Your task to perform on an android device: toggle pop-ups in chrome Image 0: 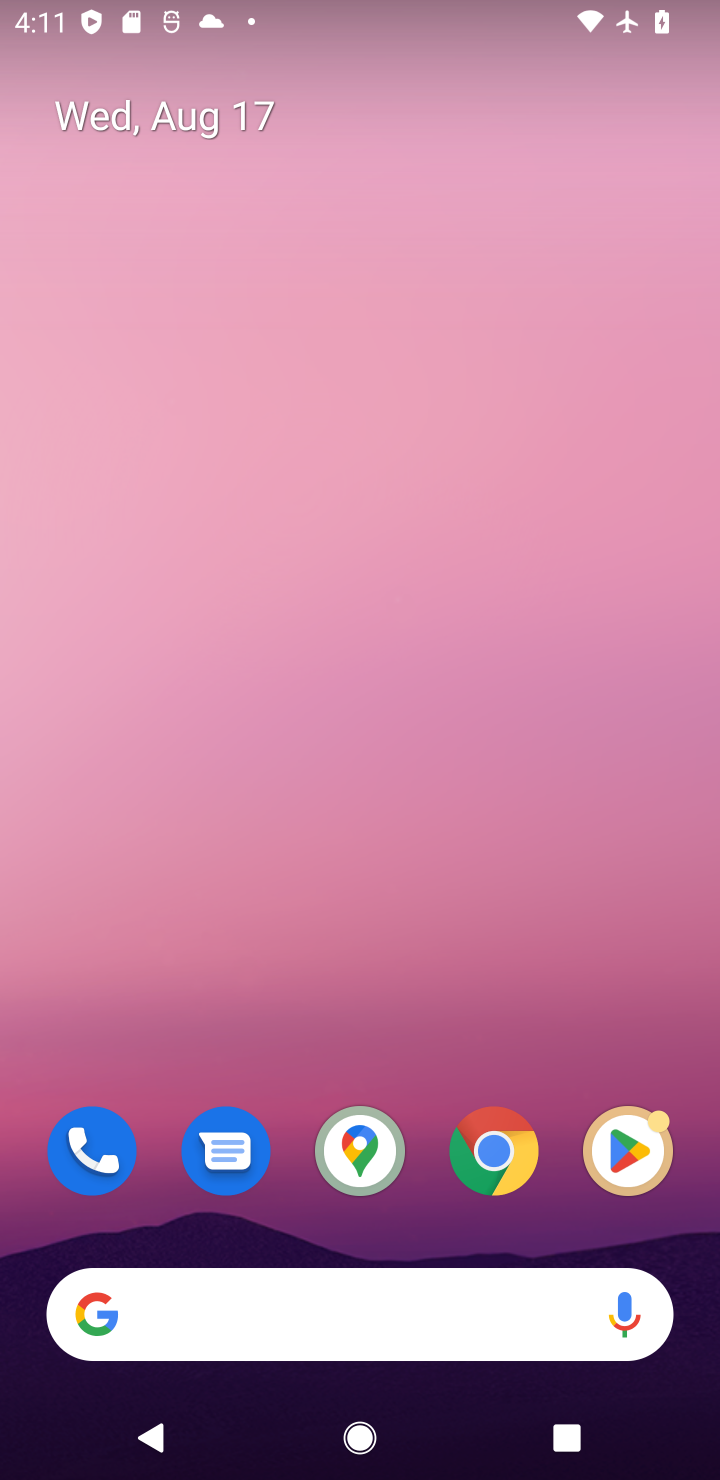
Step 0: drag from (505, 1144) to (581, 290)
Your task to perform on an android device: toggle pop-ups in chrome Image 1: 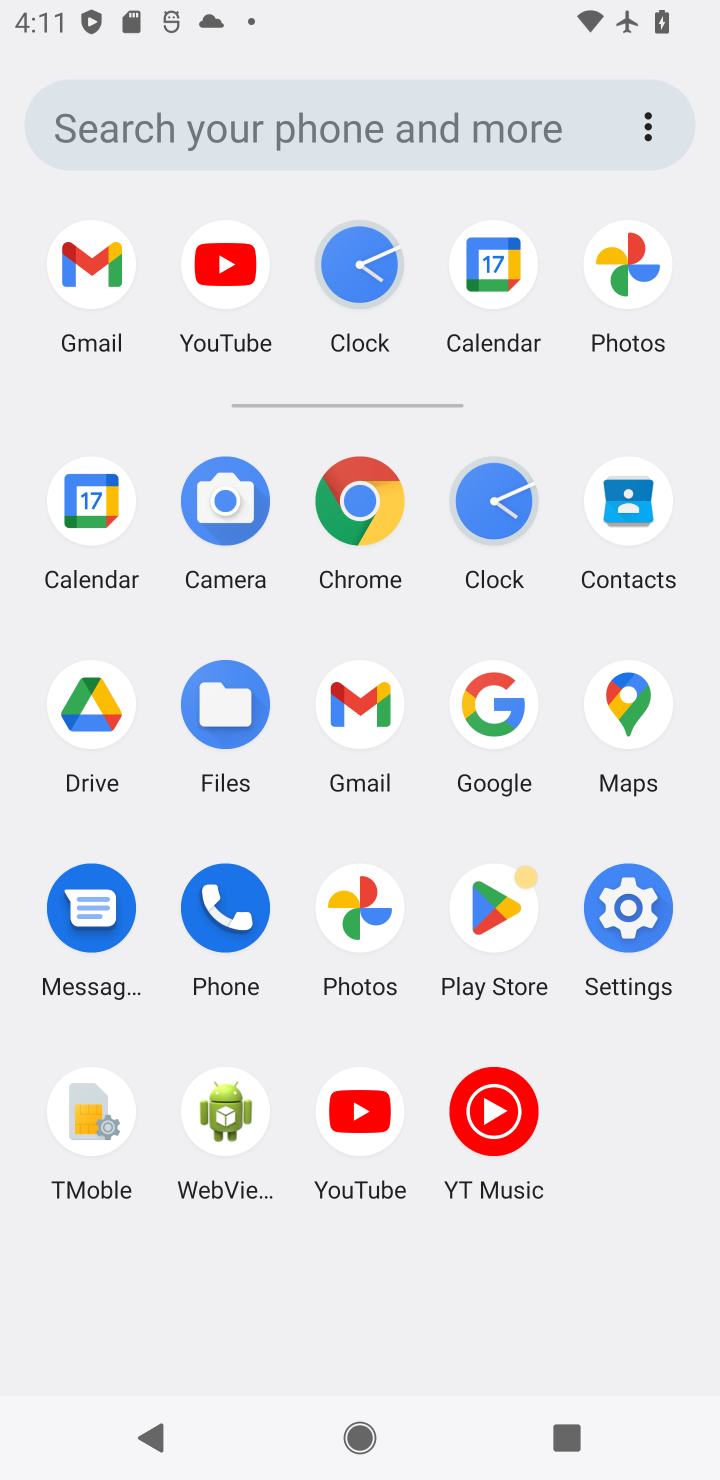
Step 1: click (362, 536)
Your task to perform on an android device: toggle pop-ups in chrome Image 2: 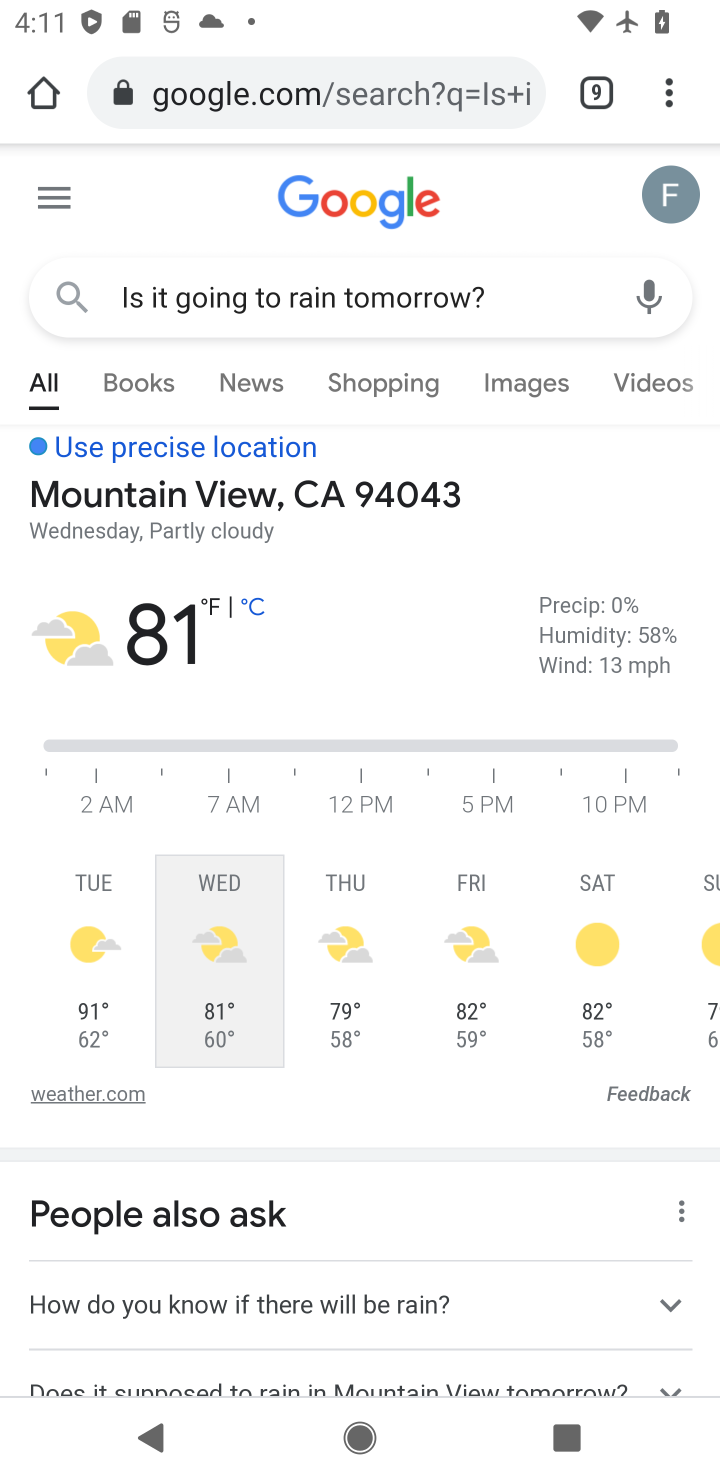
Step 2: click (653, 109)
Your task to perform on an android device: toggle pop-ups in chrome Image 3: 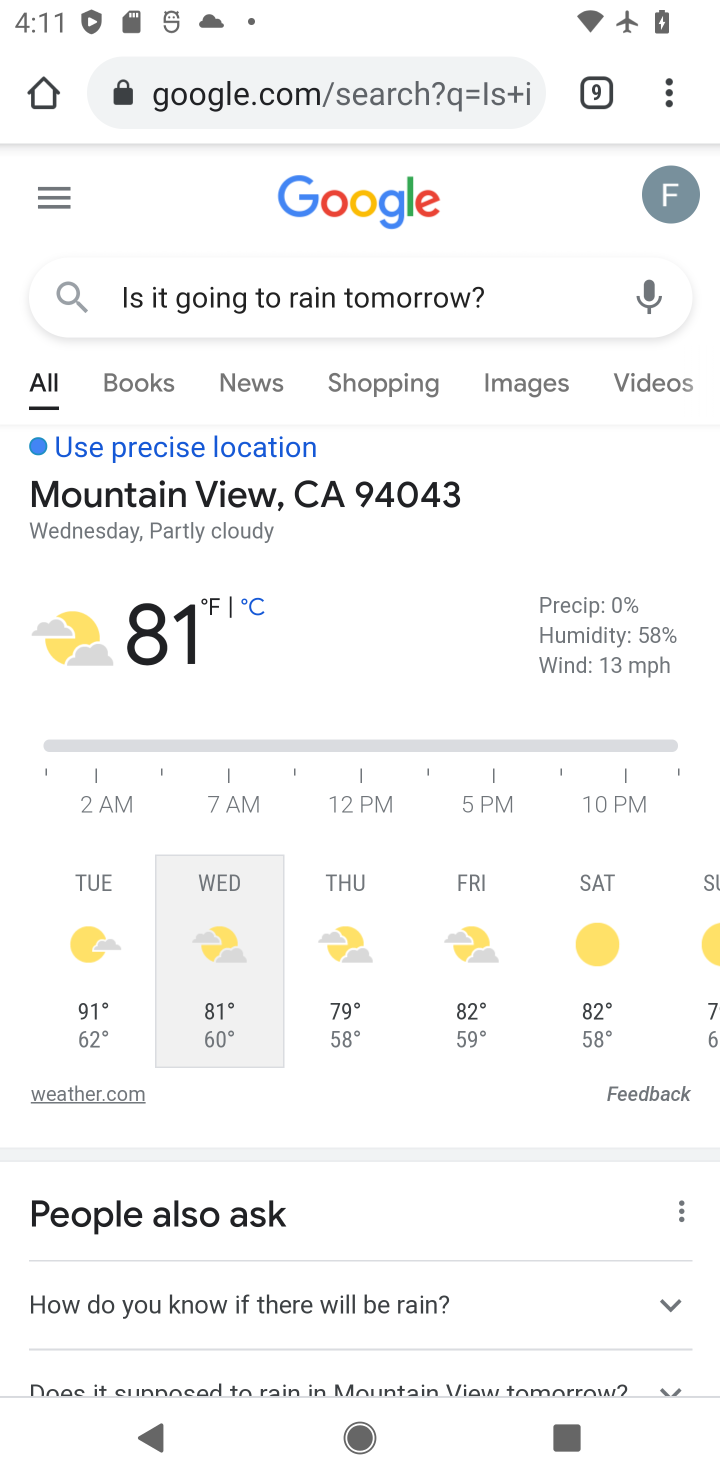
Step 3: click (667, 94)
Your task to perform on an android device: toggle pop-ups in chrome Image 4: 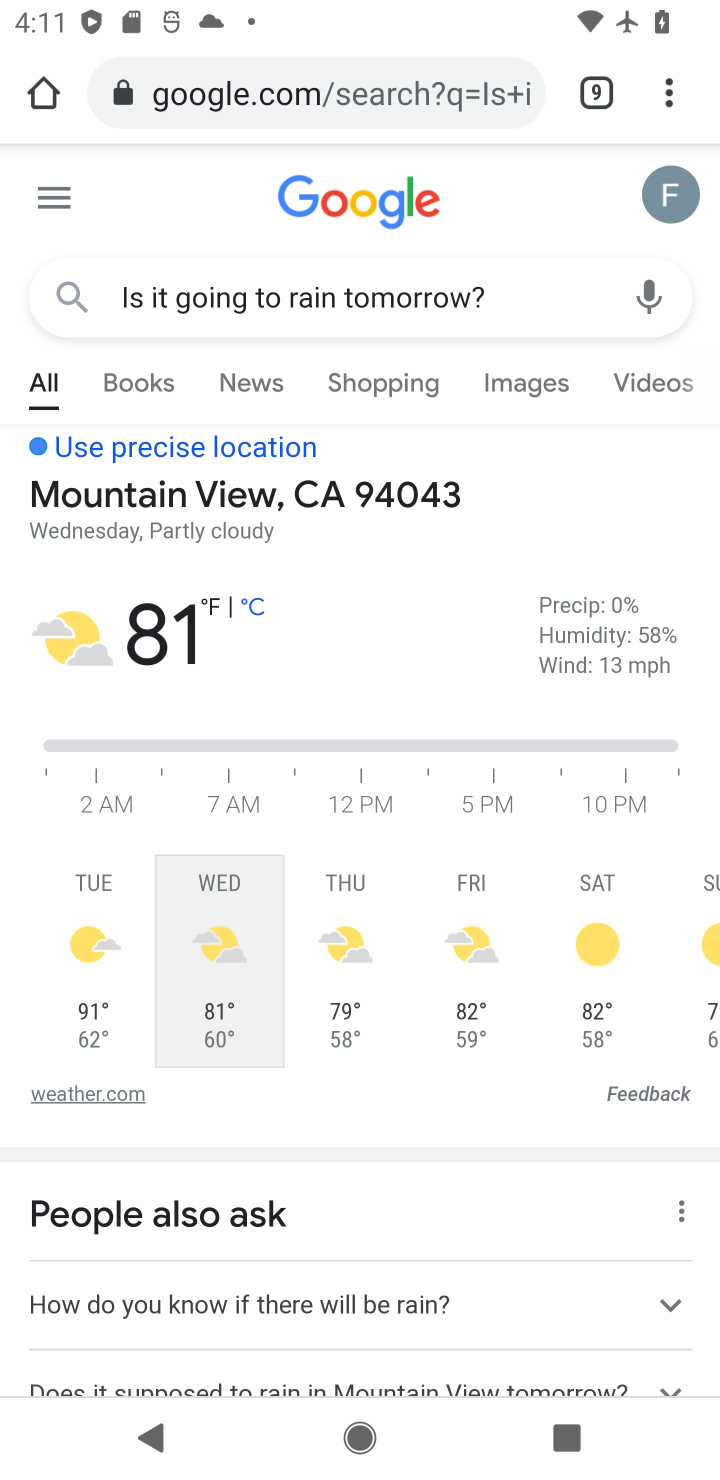
Step 4: click (667, 94)
Your task to perform on an android device: toggle pop-ups in chrome Image 5: 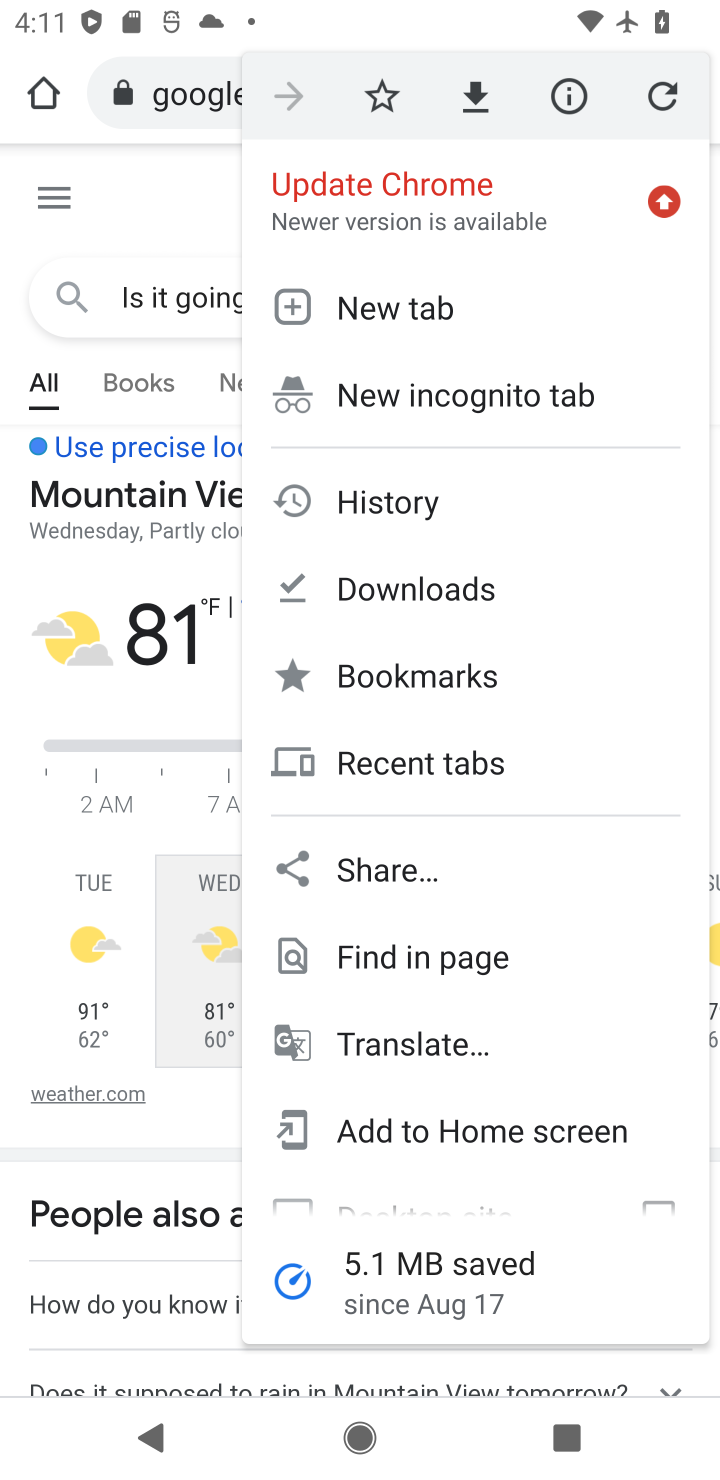
Step 5: drag from (395, 1147) to (469, 325)
Your task to perform on an android device: toggle pop-ups in chrome Image 6: 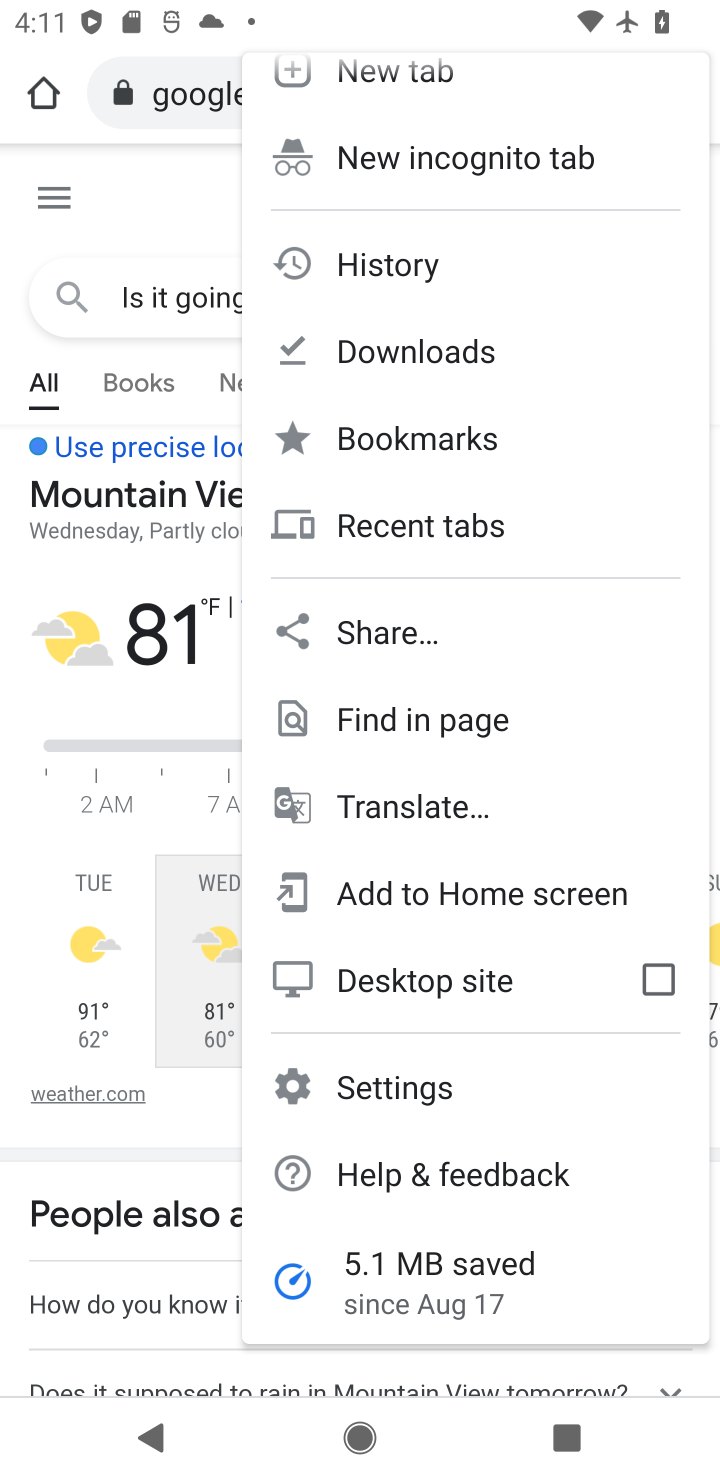
Step 6: click (395, 1067)
Your task to perform on an android device: toggle pop-ups in chrome Image 7: 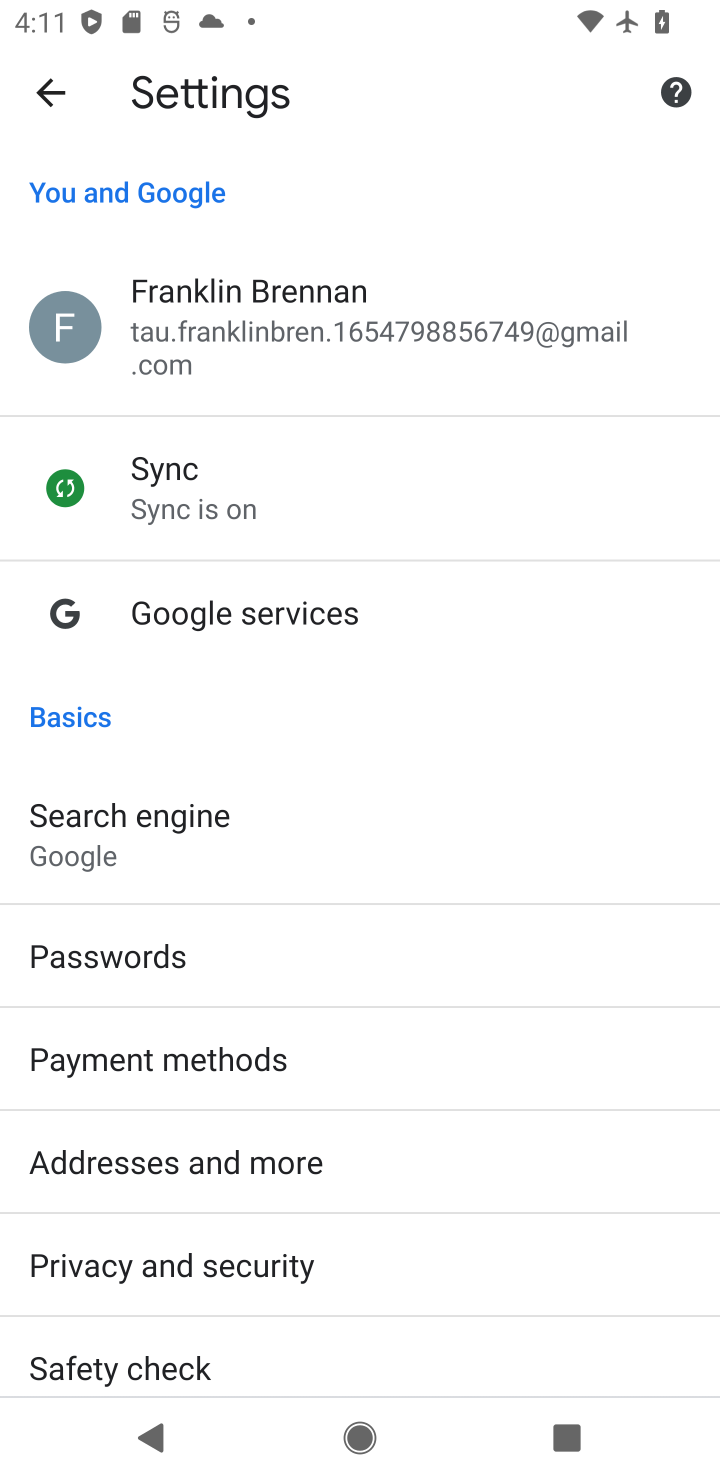
Step 7: drag from (400, 1220) to (403, 259)
Your task to perform on an android device: toggle pop-ups in chrome Image 8: 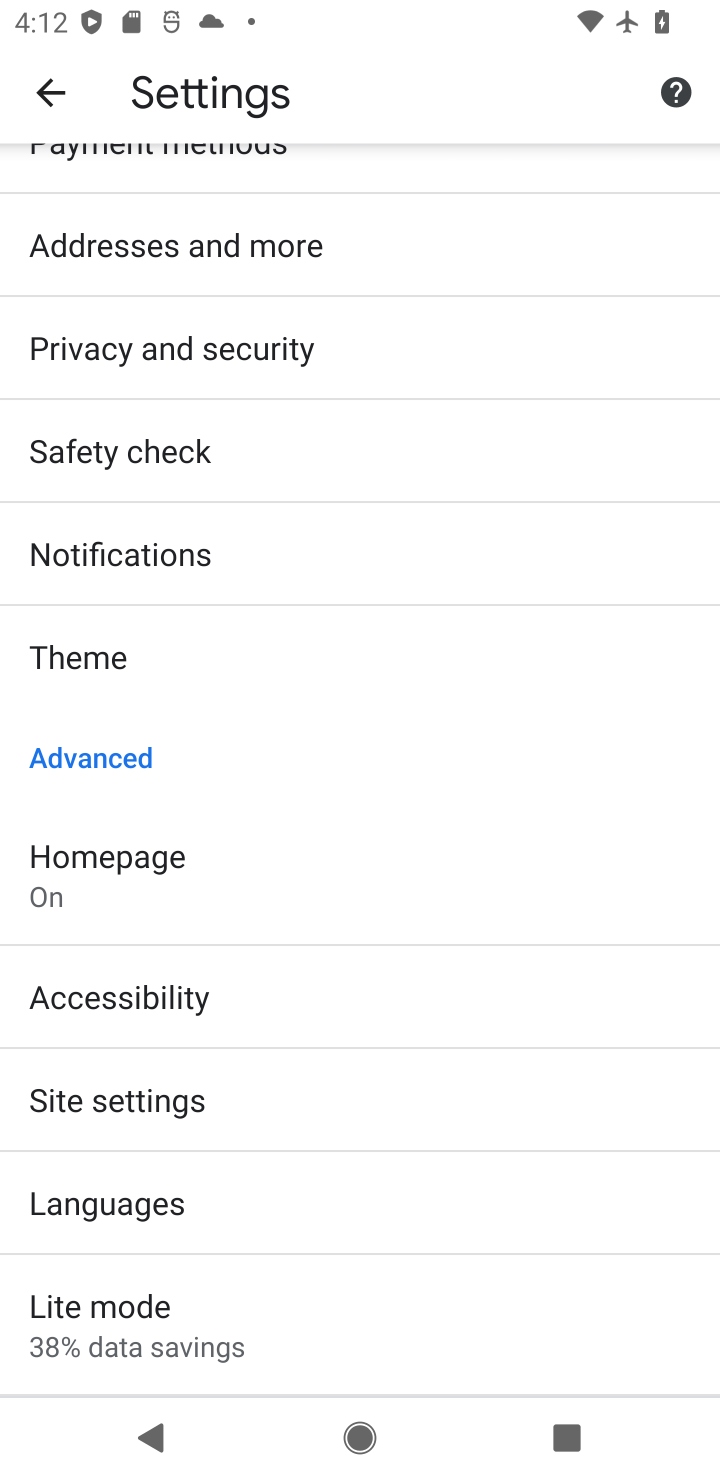
Step 8: drag from (237, 1264) to (229, 734)
Your task to perform on an android device: toggle pop-ups in chrome Image 9: 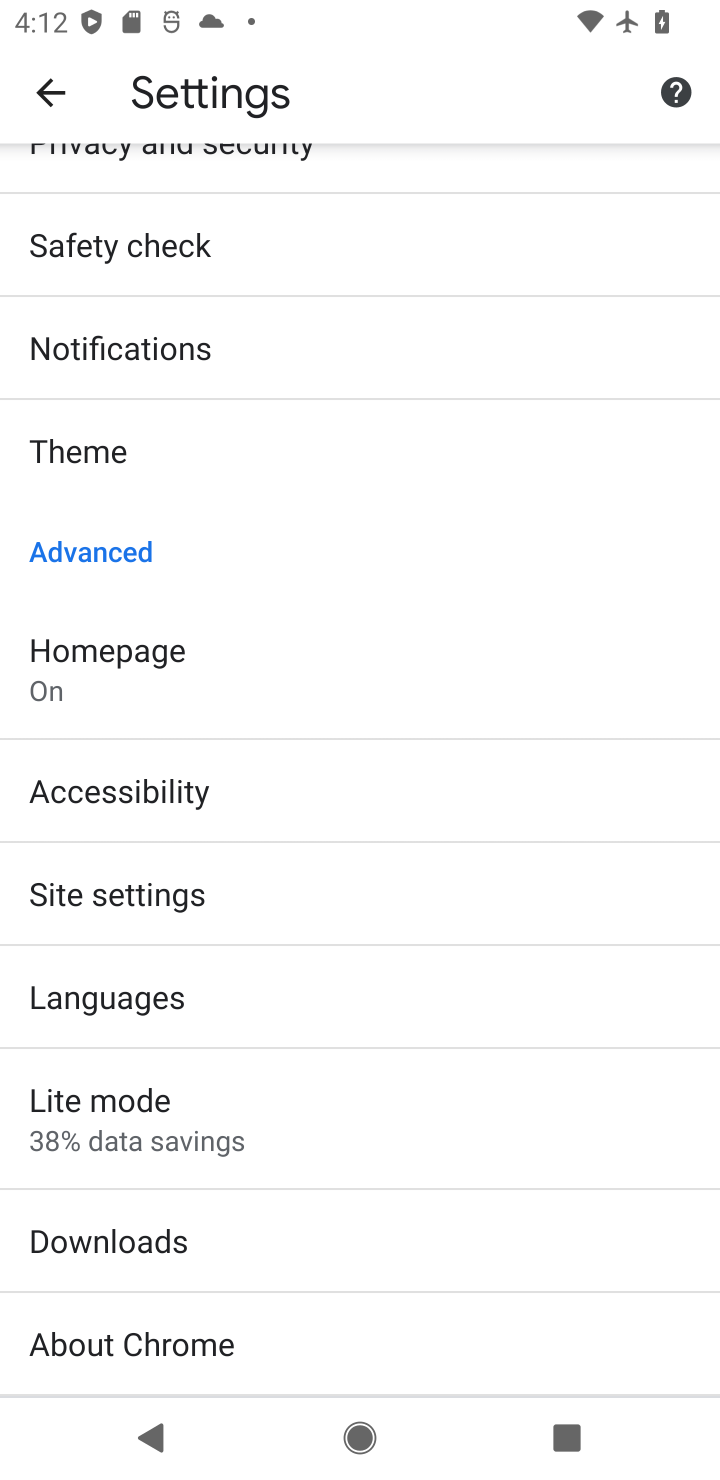
Step 9: click (156, 882)
Your task to perform on an android device: toggle pop-ups in chrome Image 10: 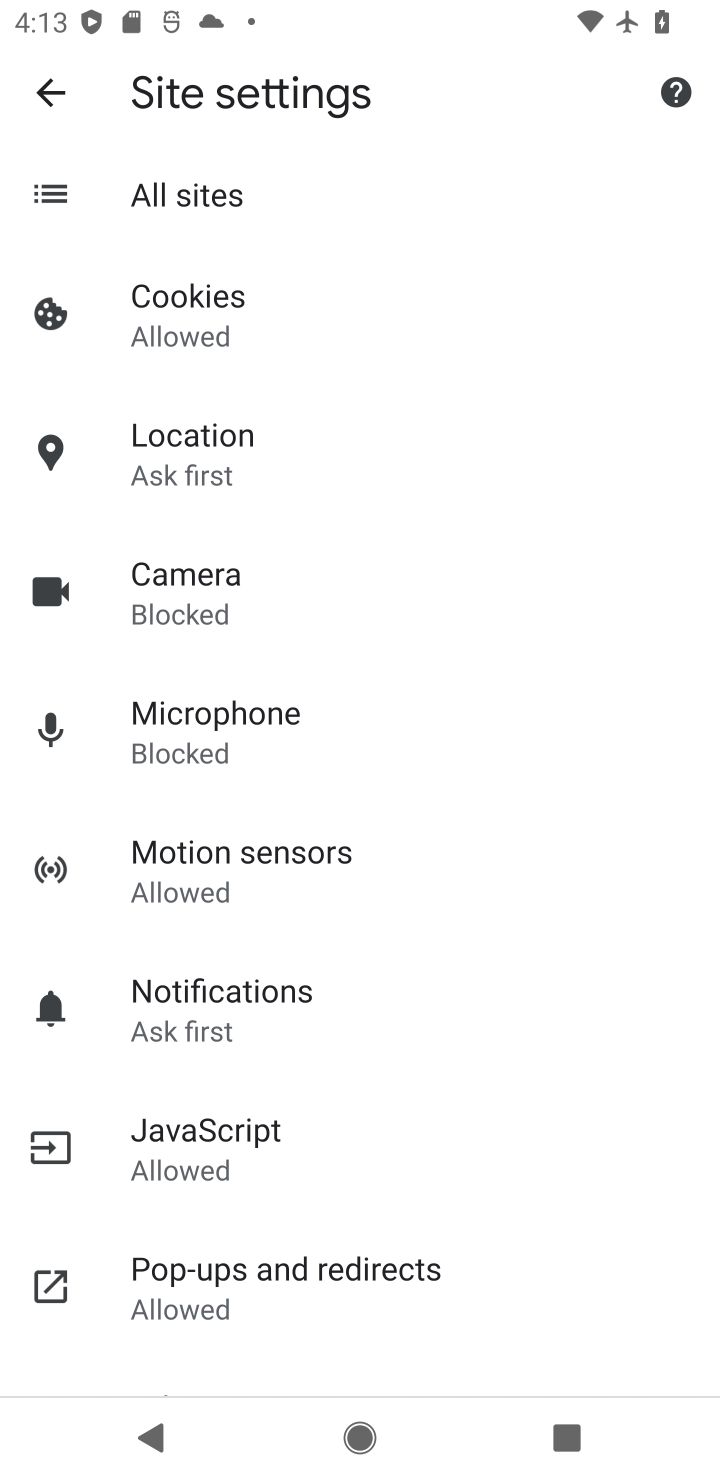
Step 10: click (209, 1278)
Your task to perform on an android device: toggle pop-ups in chrome Image 11: 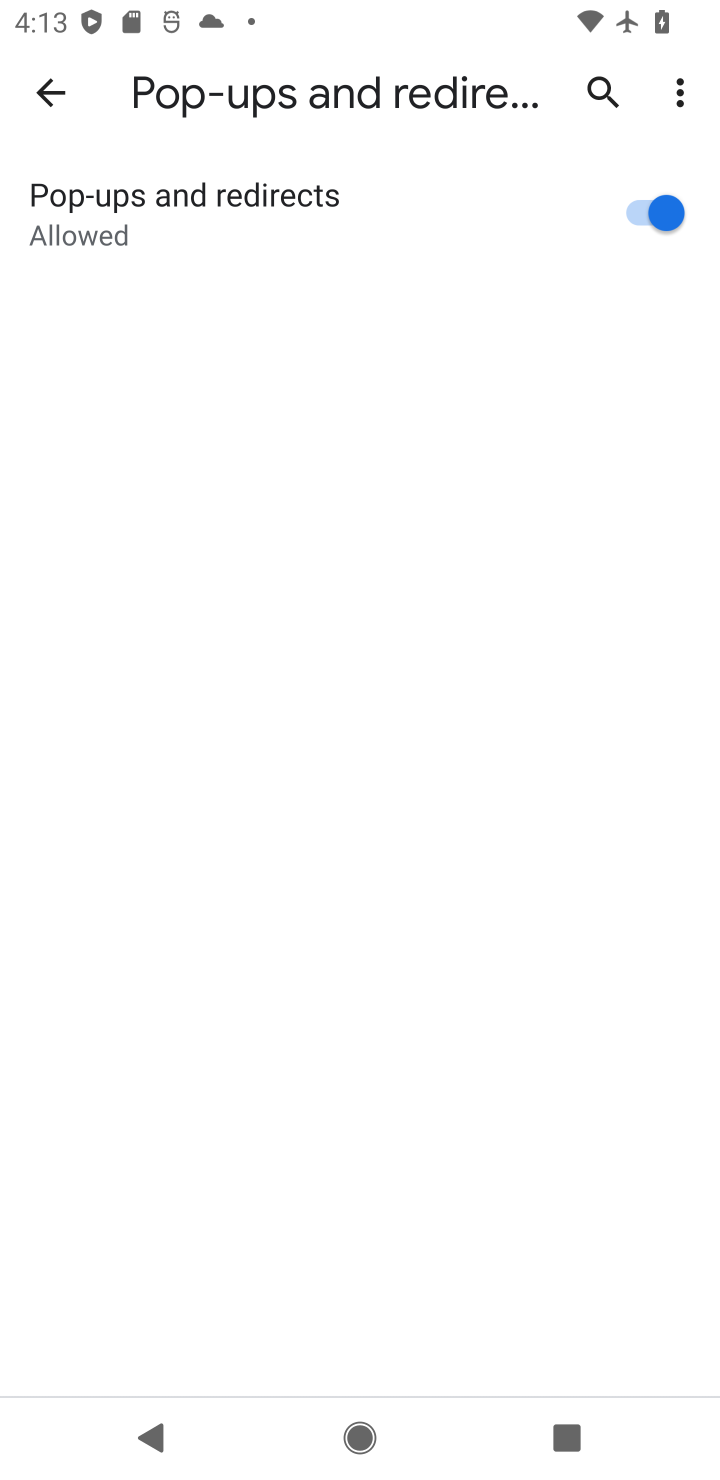
Step 11: click (671, 220)
Your task to perform on an android device: toggle pop-ups in chrome Image 12: 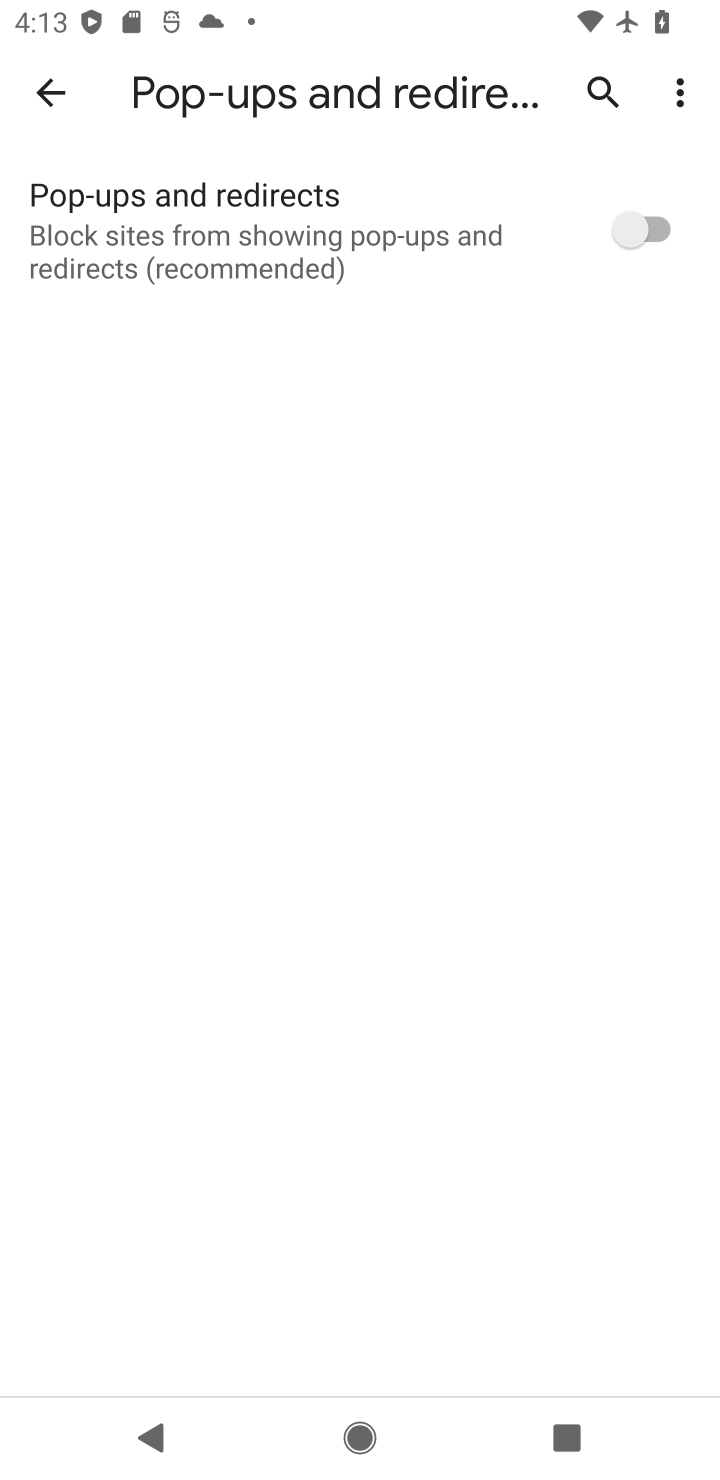
Step 12: task complete